Your task to perform on an android device: How much does a 2 bedroom apartment rent for in Chicago? Image 0: 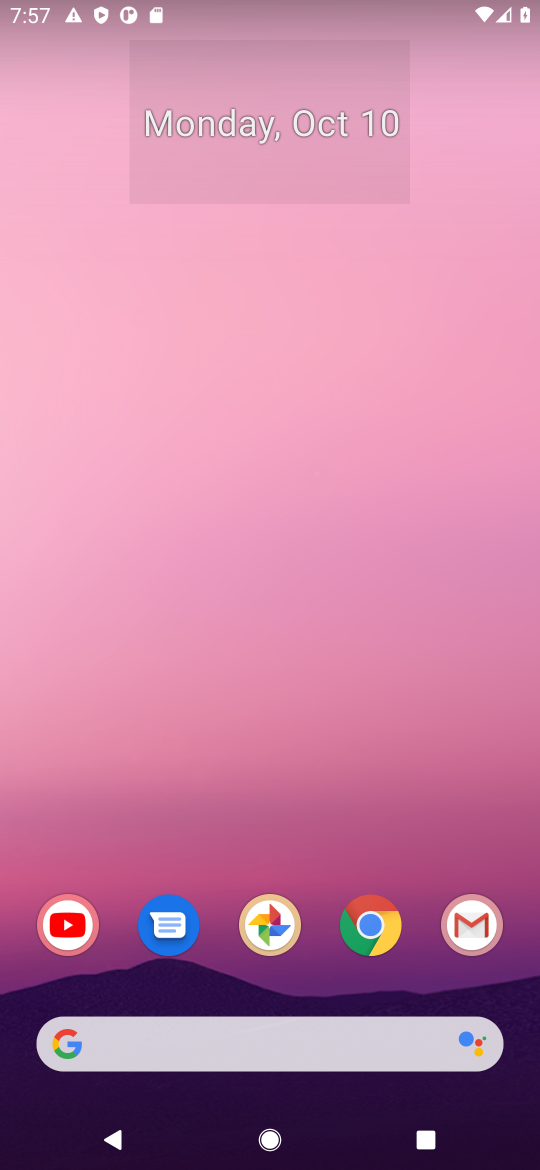
Step 0: drag from (346, 996) to (401, 155)
Your task to perform on an android device: How much does a 2 bedroom apartment rent for in Chicago? Image 1: 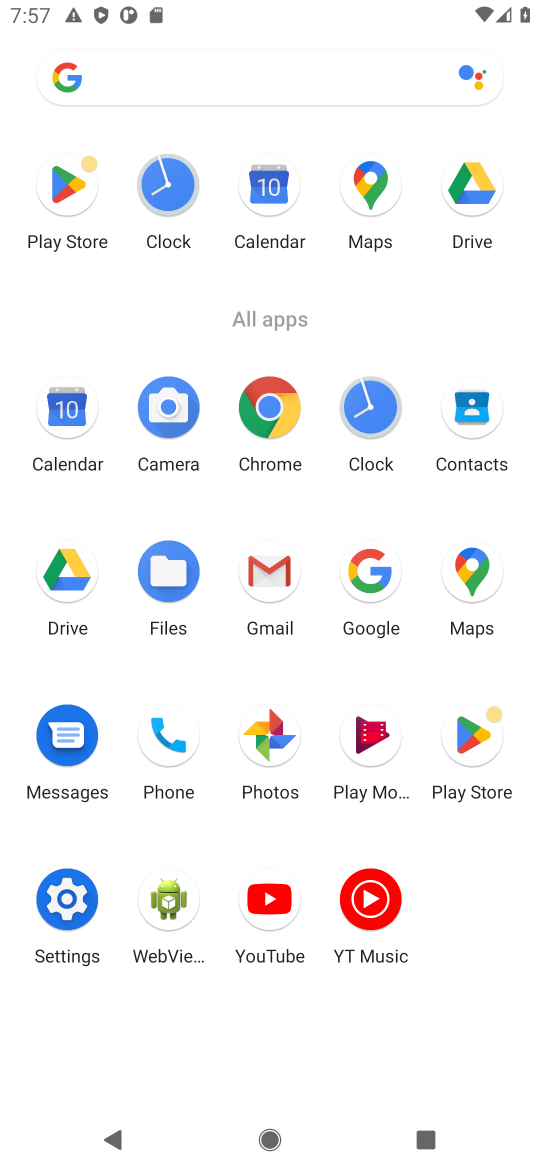
Step 1: click (270, 404)
Your task to perform on an android device: How much does a 2 bedroom apartment rent for in Chicago? Image 2: 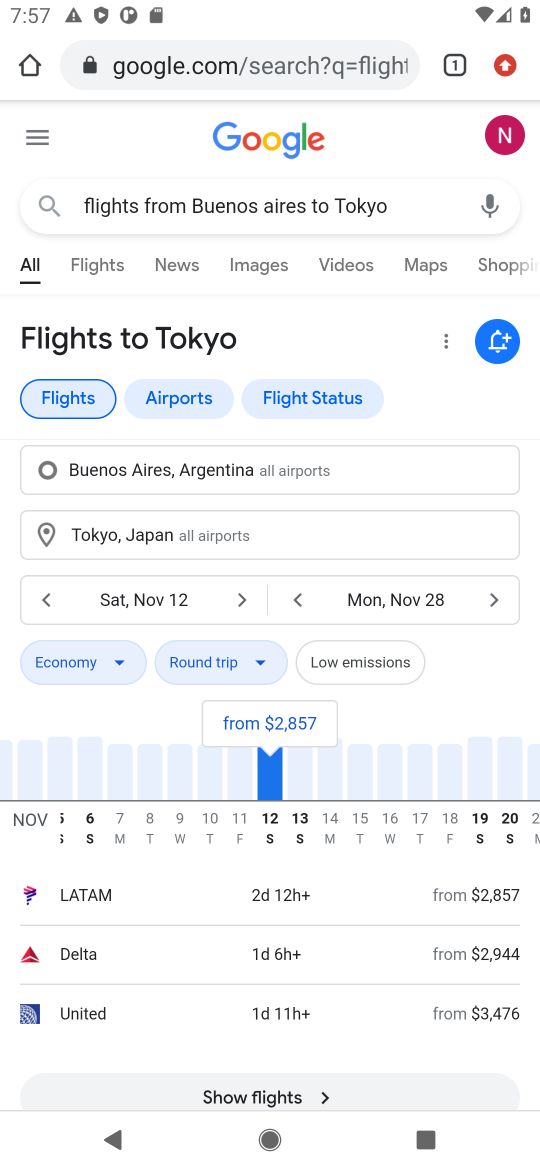
Step 2: click (363, 72)
Your task to perform on an android device: How much does a 2 bedroom apartment rent for in Chicago? Image 3: 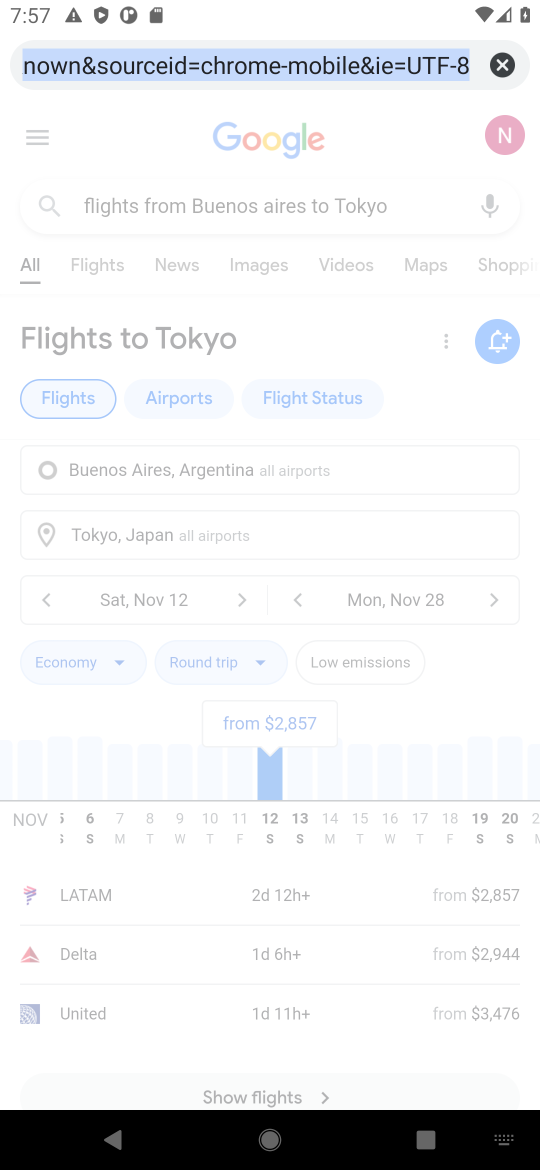
Step 3: type "how much does a 2 bedroom apartment"
Your task to perform on an android device: How much does a 2 bedroom apartment rent for in Chicago? Image 4: 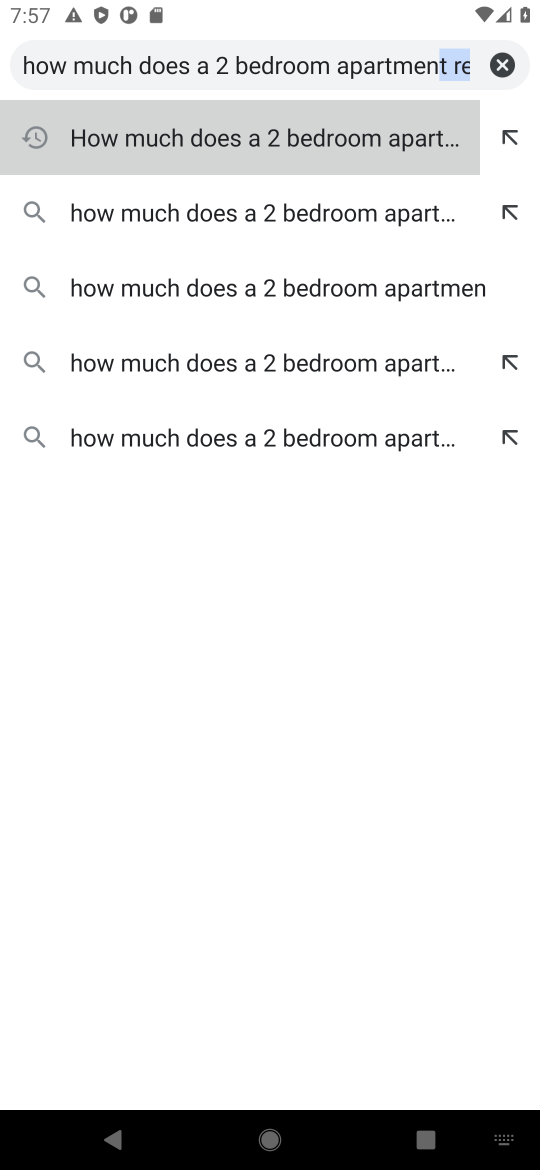
Step 4: type " rent for in Chicago?"
Your task to perform on an android device: How much does a 2 bedroom apartment rent for in Chicago? Image 5: 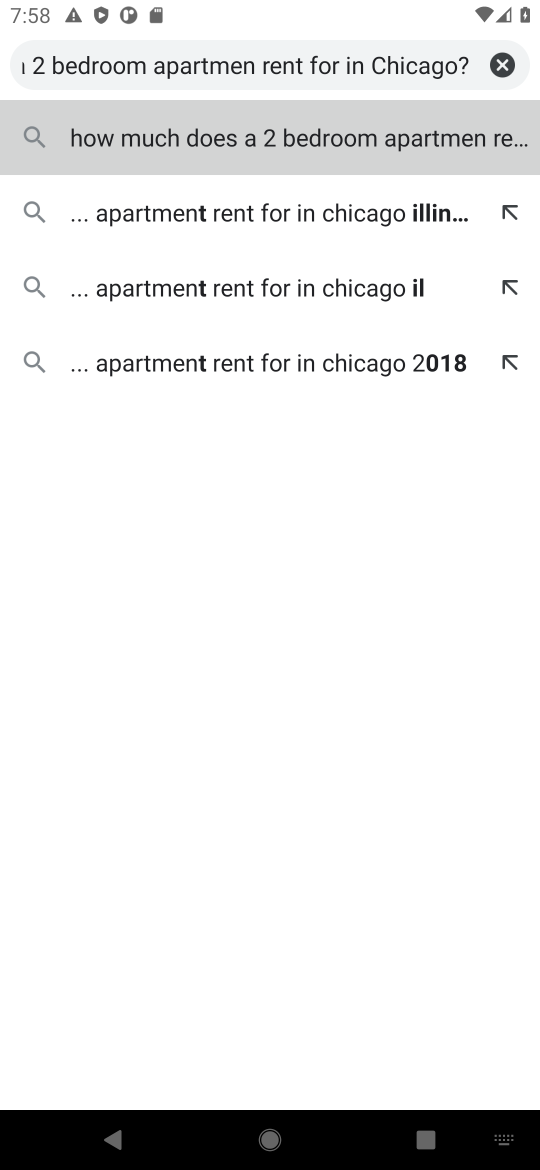
Step 5: press enter
Your task to perform on an android device: How much does a 2 bedroom apartment rent for in Chicago? Image 6: 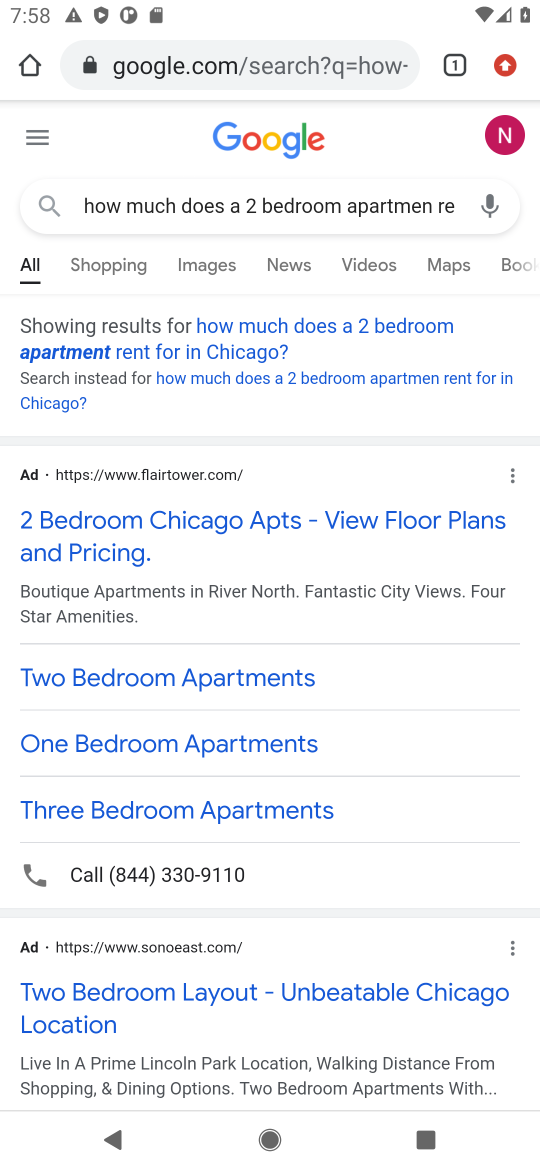
Step 6: drag from (348, 920) to (339, 128)
Your task to perform on an android device: How much does a 2 bedroom apartment rent for in Chicago? Image 7: 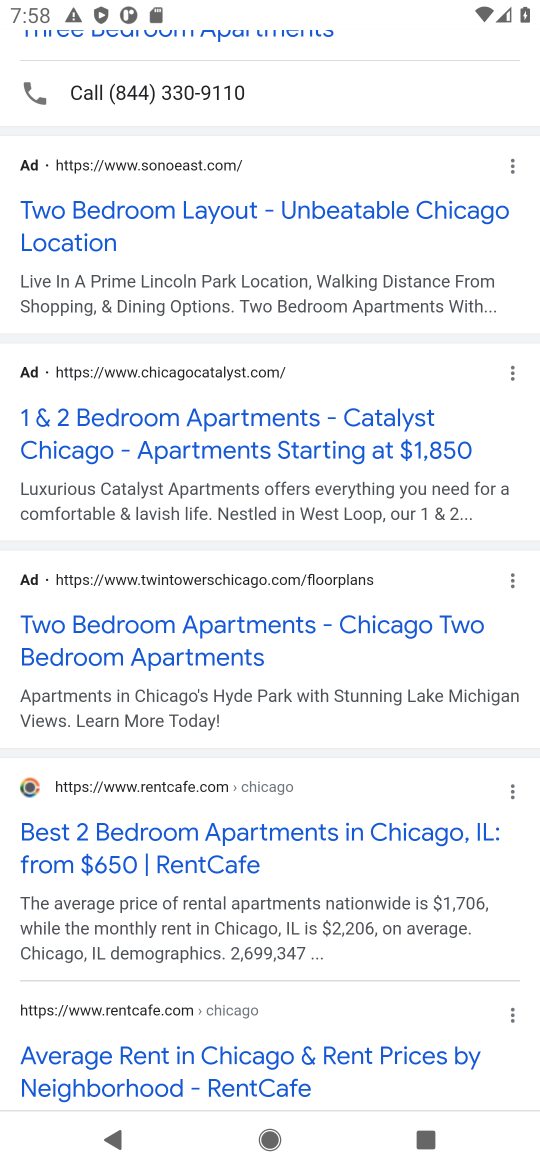
Step 7: drag from (365, 869) to (334, 557)
Your task to perform on an android device: How much does a 2 bedroom apartment rent for in Chicago? Image 8: 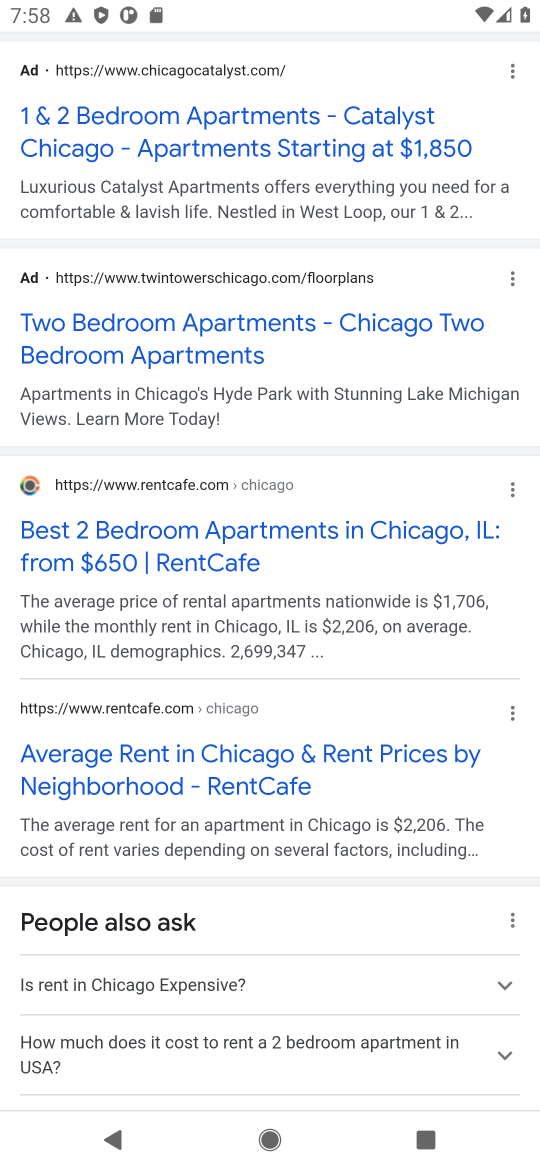
Step 8: click (267, 522)
Your task to perform on an android device: How much does a 2 bedroom apartment rent for in Chicago? Image 9: 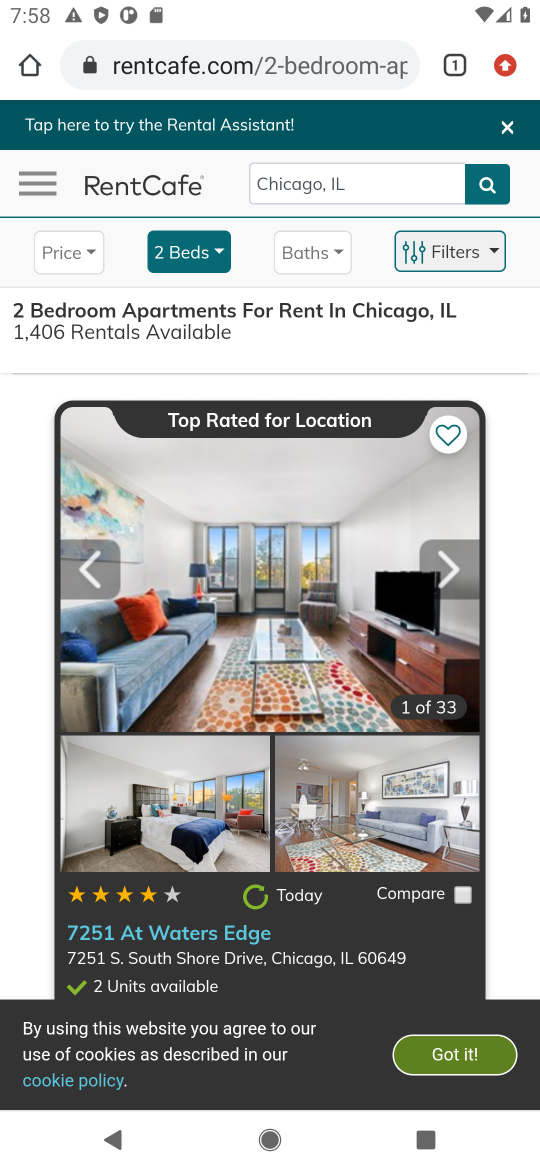
Step 9: task complete